Your task to perform on an android device: Do I have any events tomorrow? Image 0: 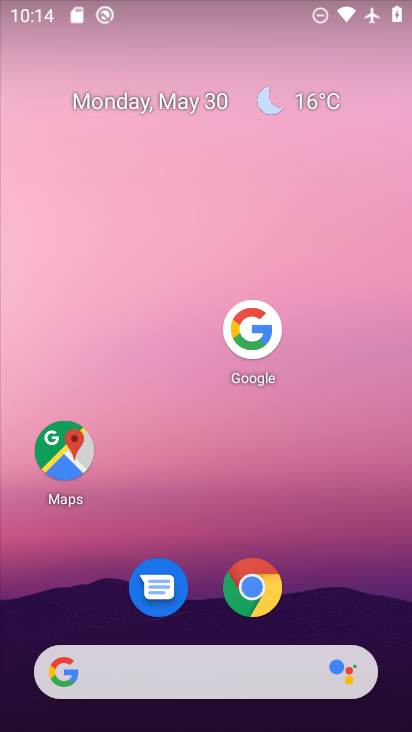
Step 0: drag from (200, 661) to (365, 57)
Your task to perform on an android device: Do I have any events tomorrow? Image 1: 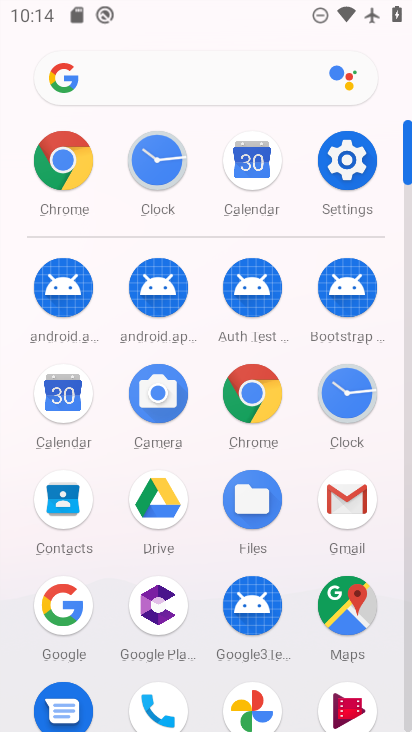
Step 1: click (256, 170)
Your task to perform on an android device: Do I have any events tomorrow? Image 2: 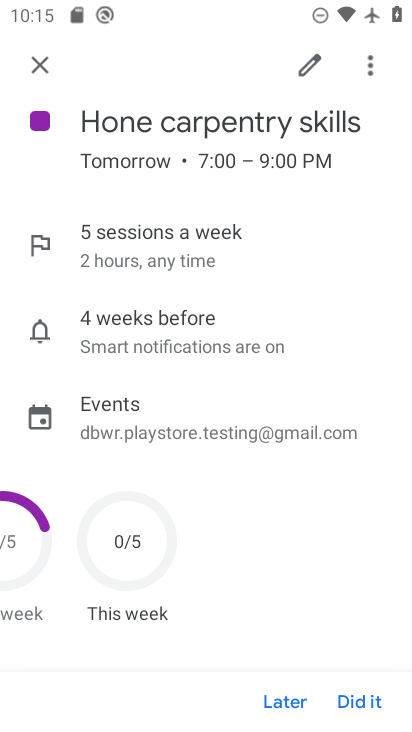
Step 2: task complete